Your task to perform on an android device: Go to location settings Image 0: 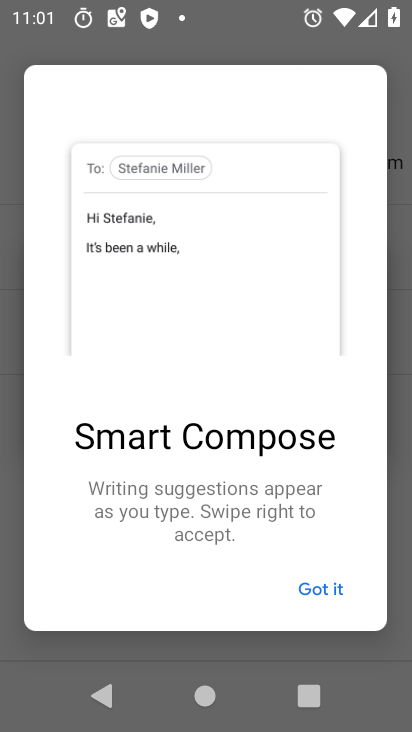
Step 0: press home button
Your task to perform on an android device: Go to location settings Image 1: 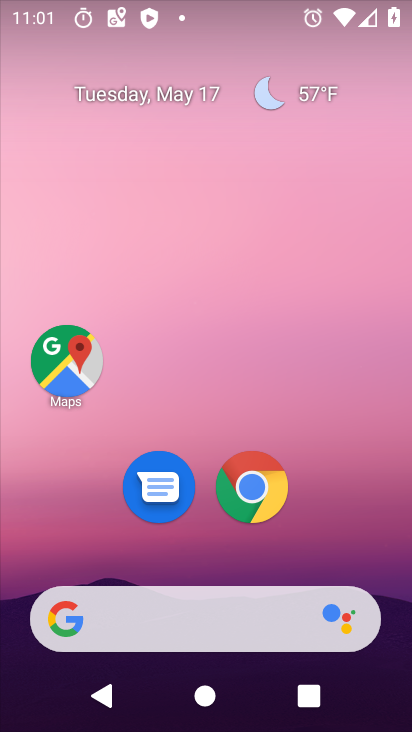
Step 1: drag from (213, 714) to (187, 200)
Your task to perform on an android device: Go to location settings Image 2: 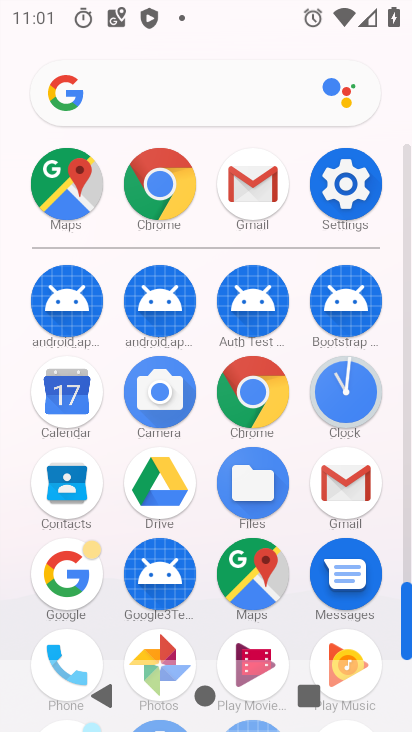
Step 2: click (344, 189)
Your task to perform on an android device: Go to location settings Image 3: 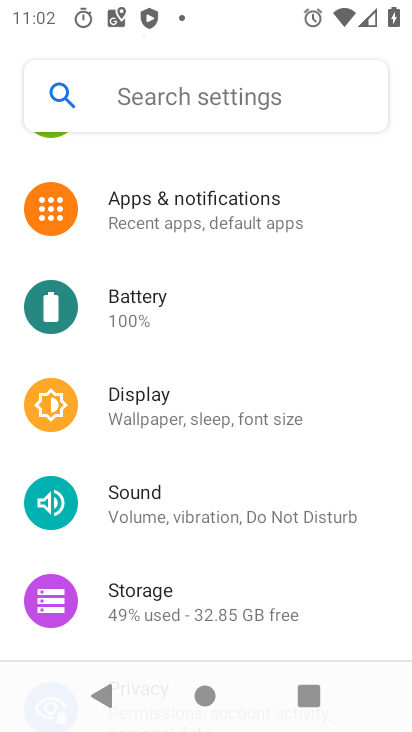
Step 3: drag from (184, 618) to (188, 244)
Your task to perform on an android device: Go to location settings Image 4: 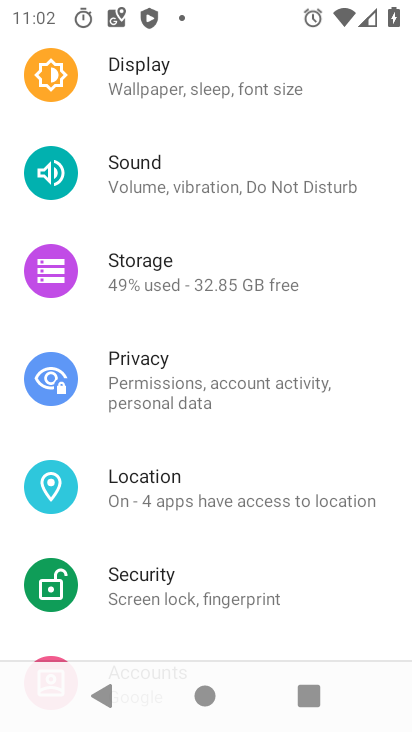
Step 4: click (177, 498)
Your task to perform on an android device: Go to location settings Image 5: 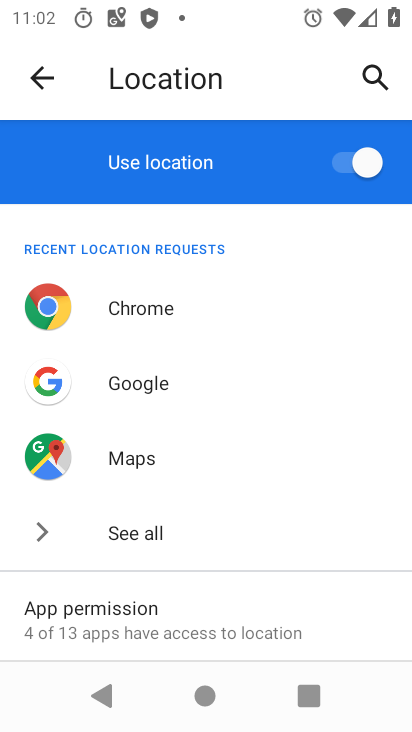
Step 5: task complete